Your task to perform on an android device: Open wifi settings Image 0: 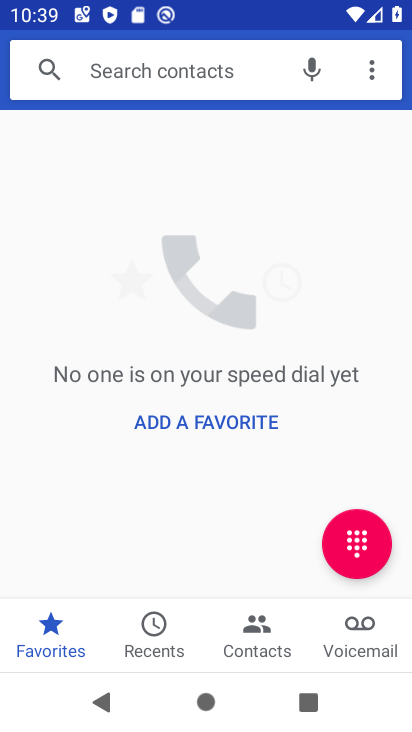
Step 0: press home button
Your task to perform on an android device: Open wifi settings Image 1: 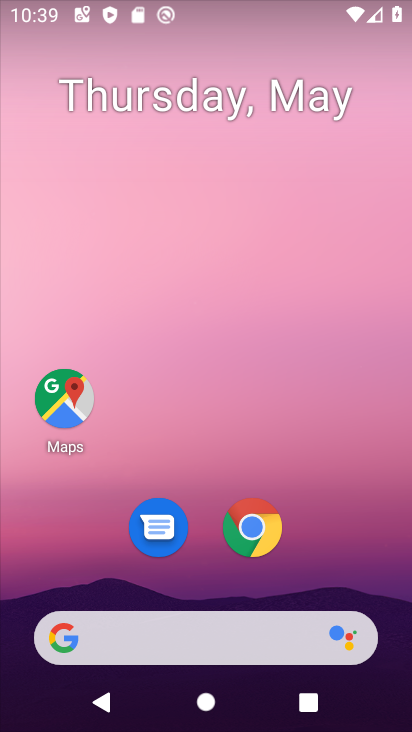
Step 1: drag from (312, 478) to (339, 207)
Your task to perform on an android device: Open wifi settings Image 2: 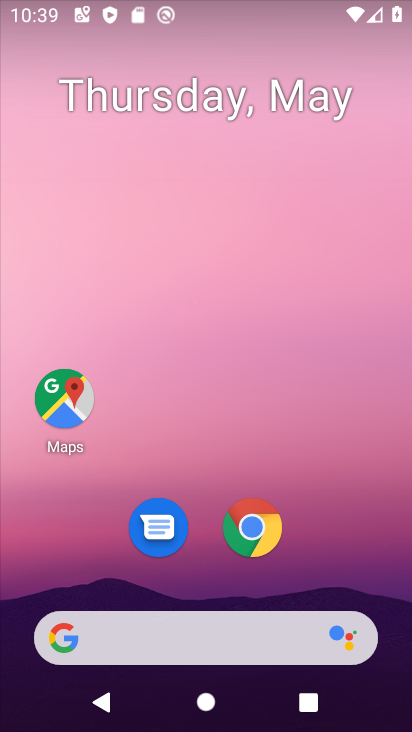
Step 2: drag from (325, 512) to (330, 103)
Your task to perform on an android device: Open wifi settings Image 3: 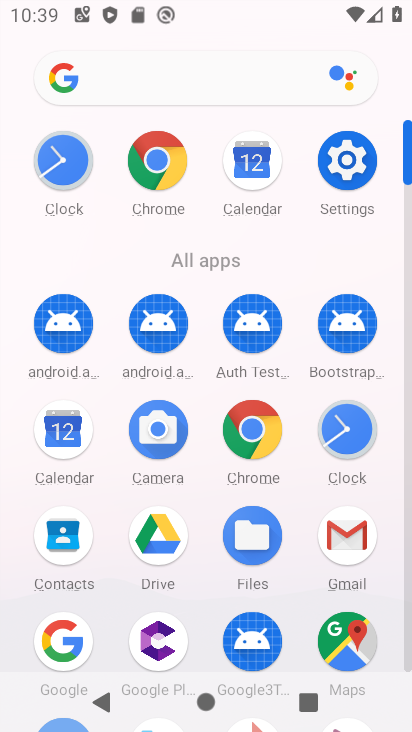
Step 3: click (350, 169)
Your task to perform on an android device: Open wifi settings Image 4: 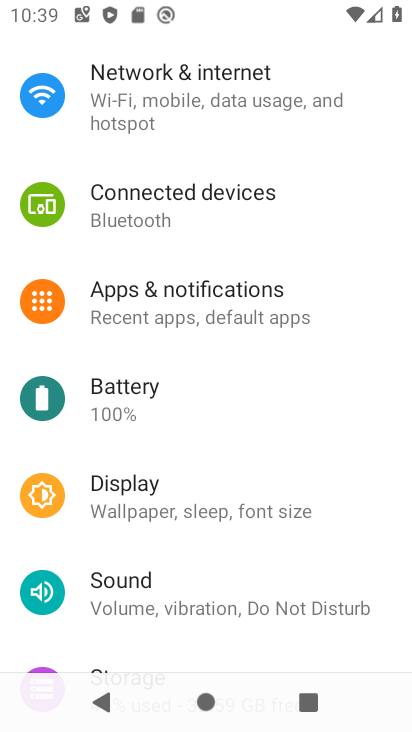
Step 4: drag from (305, 157) to (291, 557)
Your task to perform on an android device: Open wifi settings Image 5: 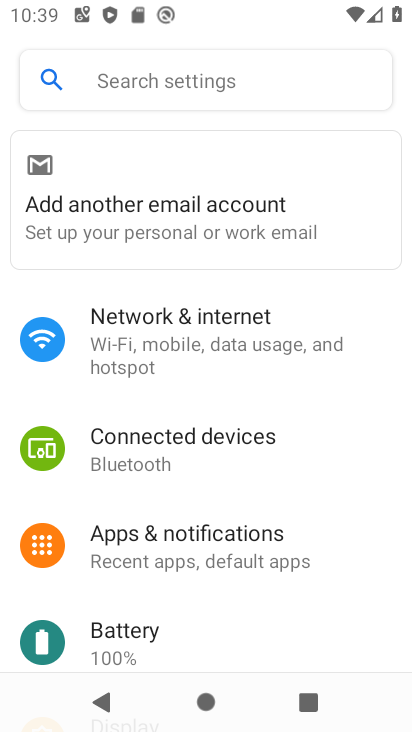
Step 5: click (228, 325)
Your task to perform on an android device: Open wifi settings Image 6: 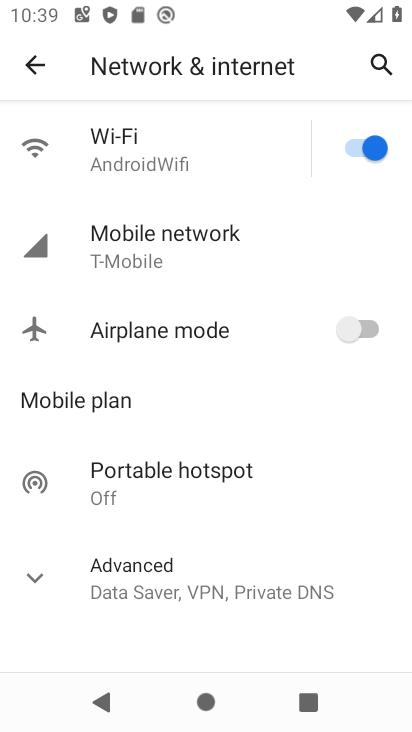
Step 6: click (226, 142)
Your task to perform on an android device: Open wifi settings Image 7: 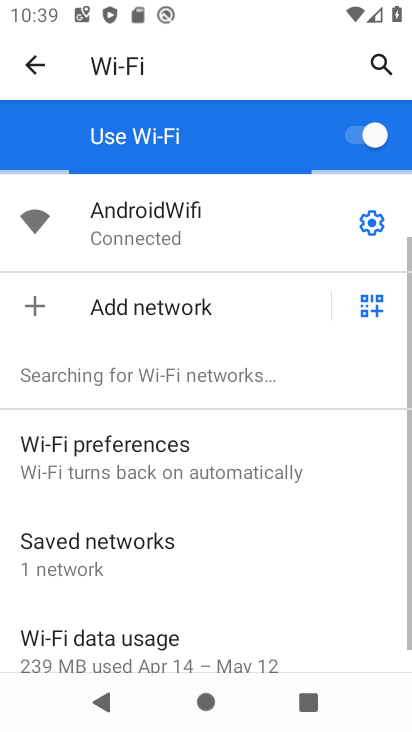
Step 7: click (371, 216)
Your task to perform on an android device: Open wifi settings Image 8: 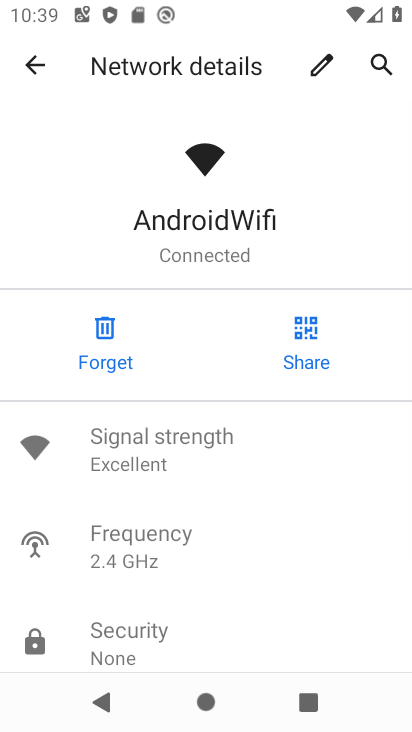
Step 8: task complete